Your task to perform on an android device: Set the phone to "Do not disturb". Image 0: 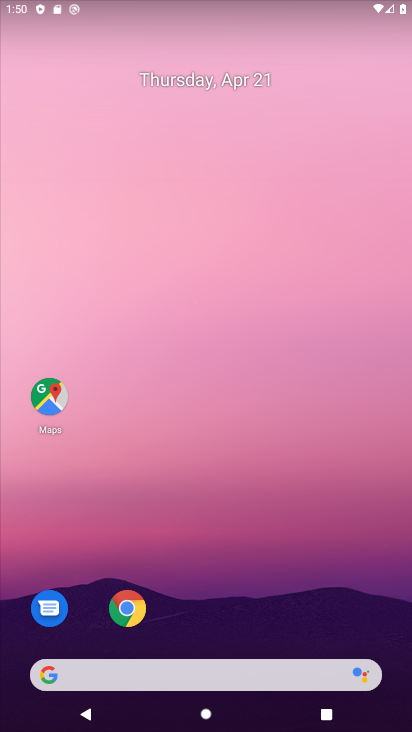
Step 0: drag from (316, 552) to (292, 3)
Your task to perform on an android device: Set the phone to "Do not disturb". Image 1: 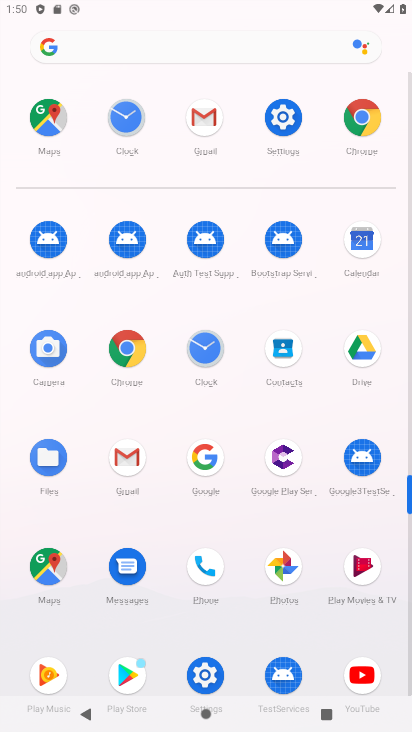
Step 1: click (274, 108)
Your task to perform on an android device: Set the phone to "Do not disturb". Image 2: 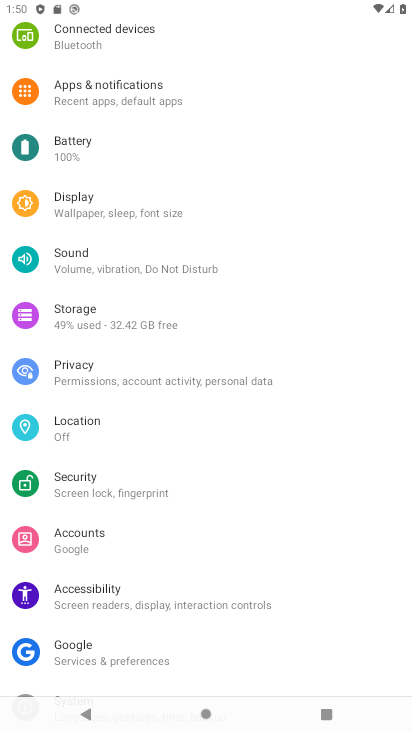
Step 2: click (94, 273)
Your task to perform on an android device: Set the phone to "Do not disturb". Image 3: 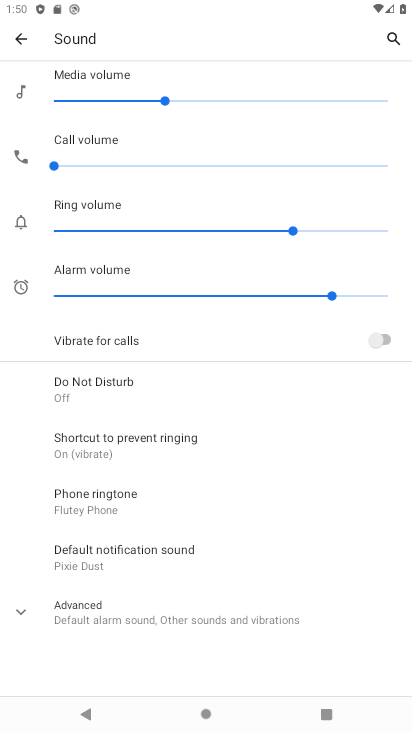
Step 3: drag from (185, 591) to (199, 240)
Your task to perform on an android device: Set the phone to "Do not disturb". Image 4: 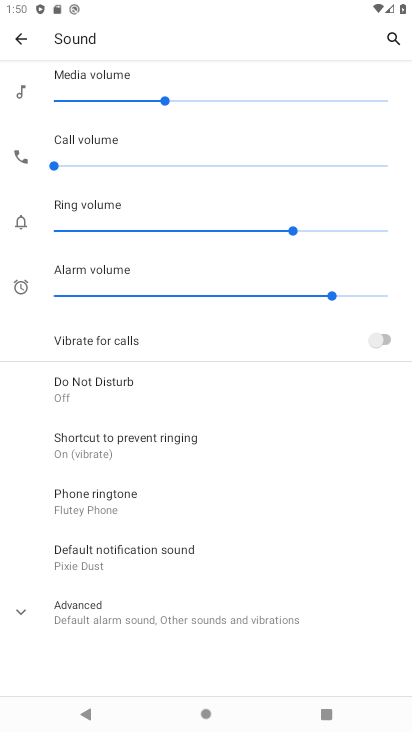
Step 4: drag from (257, 592) to (256, 241)
Your task to perform on an android device: Set the phone to "Do not disturb". Image 5: 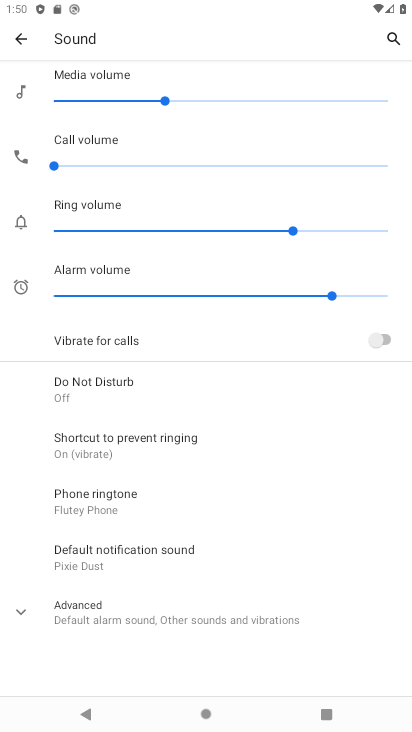
Step 5: click (63, 396)
Your task to perform on an android device: Set the phone to "Do not disturb". Image 6: 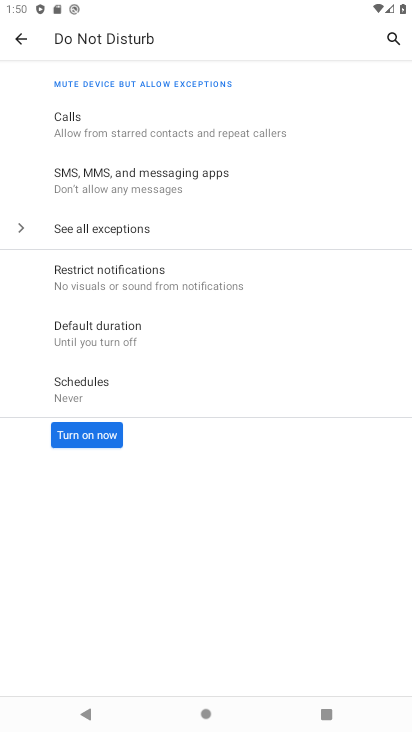
Step 6: click (107, 444)
Your task to perform on an android device: Set the phone to "Do not disturb". Image 7: 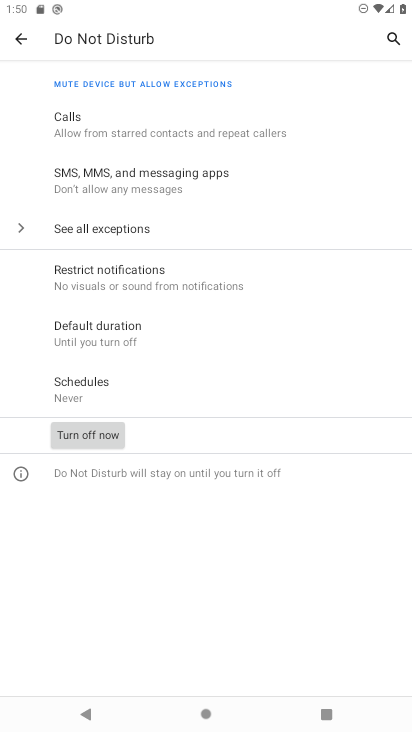
Step 7: task complete